Your task to perform on an android device: Go to Maps Image 0: 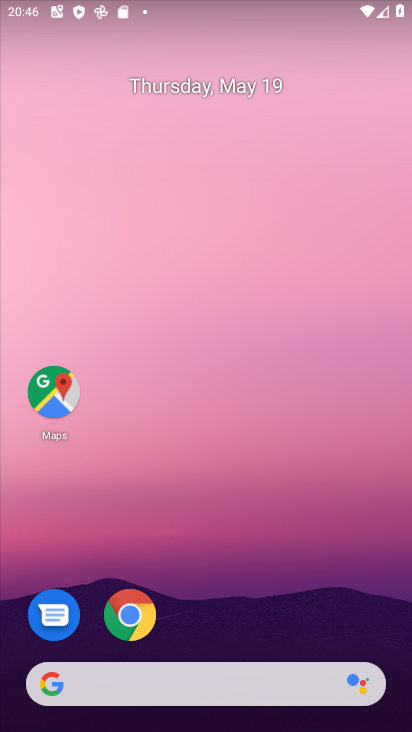
Step 0: click (49, 388)
Your task to perform on an android device: Go to Maps Image 1: 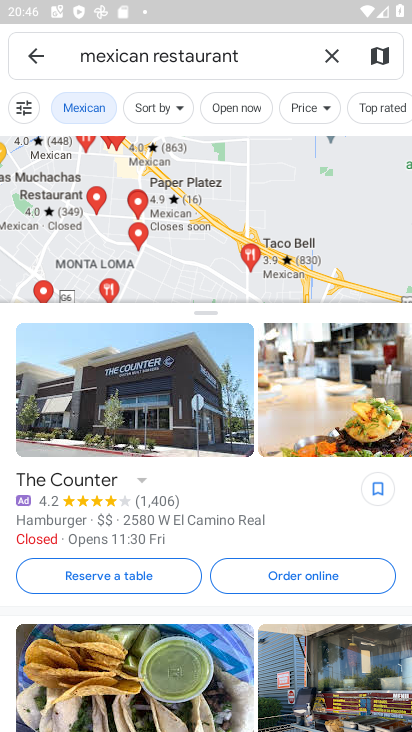
Step 1: task complete